Your task to perform on an android device: open app "Yahoo Mail" Image 0: 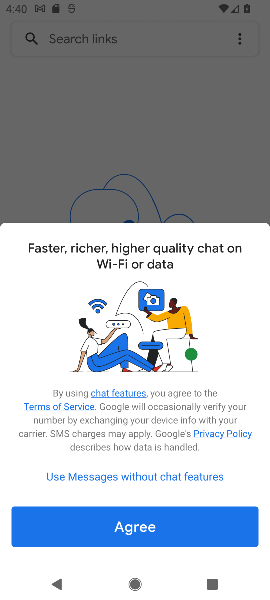
Step 0: press home button
Your task to perform on an android device: open app "Yahoo Mail" Image 1: 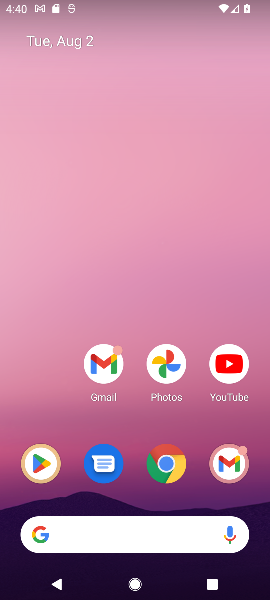
Step 1: click (33, 463)
Your task to perform on an android device: open app "Yahoo Mail" Image 2: 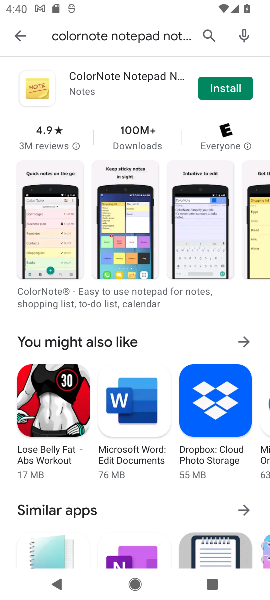
Step 2: click (206, 37)
Your task to perform on an android device: open app "Yahoo Mail" Image 3: 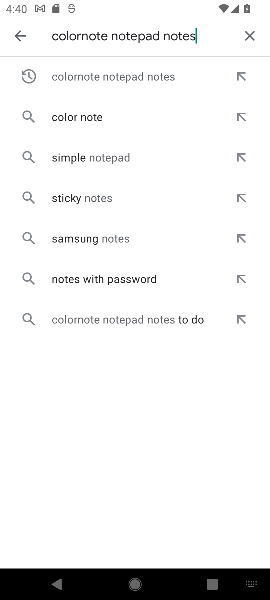
Step 3: click (244, 33)
Your task to perform on an android device: open app "Yahoo Mail" Image 4: 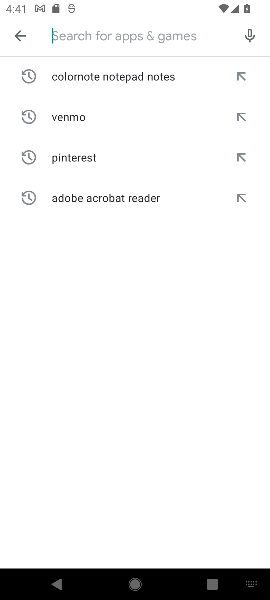
Step 4: type "Yahoo Mail"
Your task to perform on an android device: open app "Yahoo Mail" Image 5: 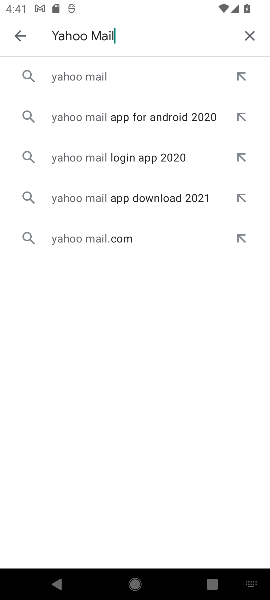
Step 5: click (98, 70)
Your task to perform on an android device: open app "Yahoo Mail" Image 6: 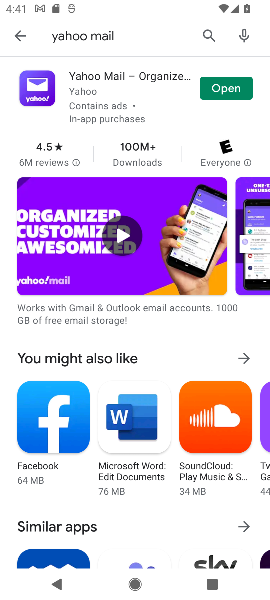
Step 6: click (229, 86)
Your task to perform on an android device: open app "Yahoo Mail" Image 7: 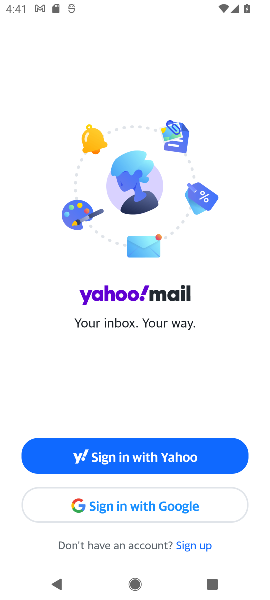
Step 7: task complete